Your task to perform on an android device: Go to Google Image 0: 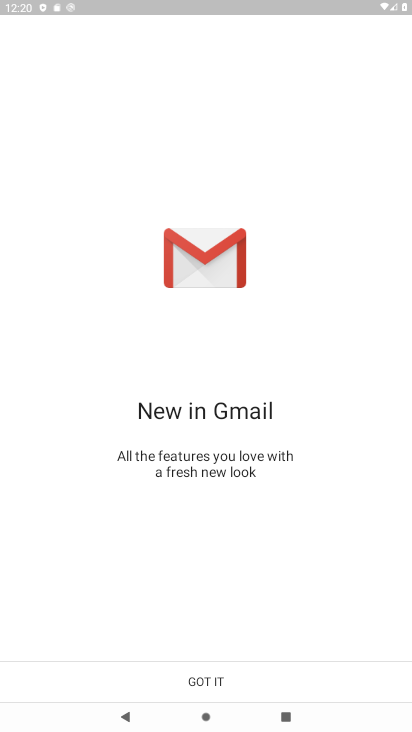
Step 0: press home button
Your task to perform on an android device: Go to Google Image 1: 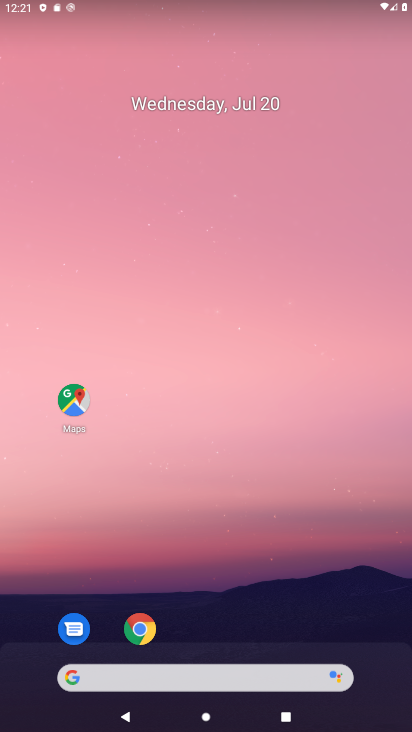
Step 1: drag from (273, 692) to (338, 108)
Your task to perform on an android device: Go to Google Image 2: 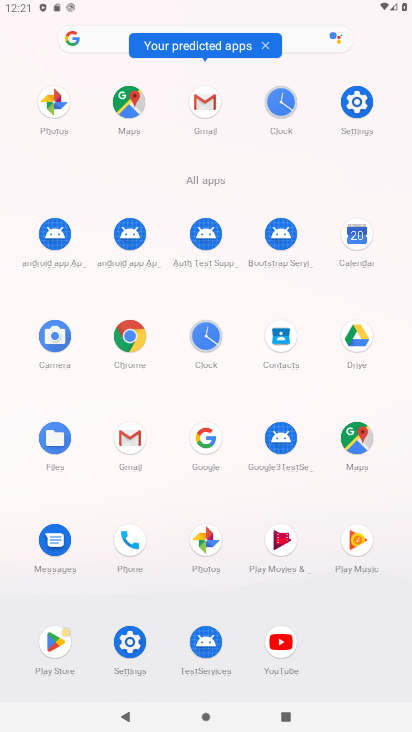
Step 2: click (206, 444)
Your task to perform on an android device: Go to Google Image 3: 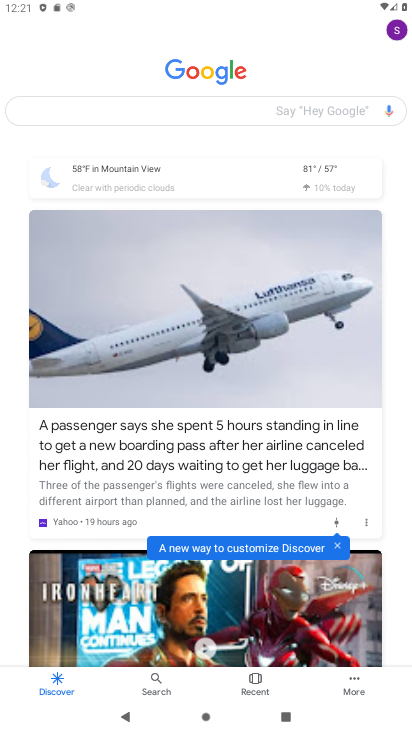
Step 3: task complete